Your task to perform on an android device: Open notification settings Image 0: 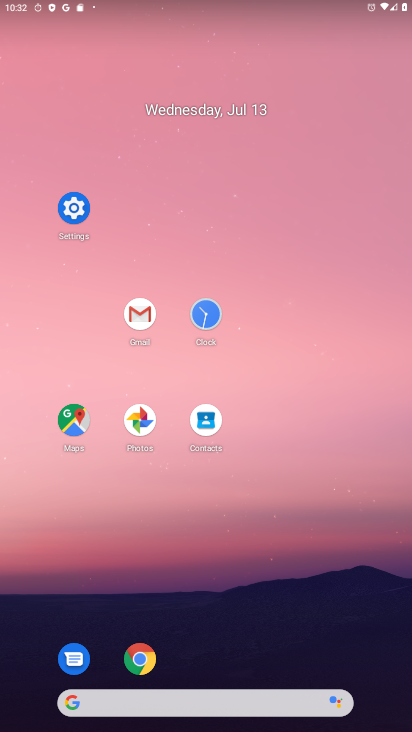
Step 0: click (69, 211)
Your task to perform on an android device: Open notification settings Image 1: 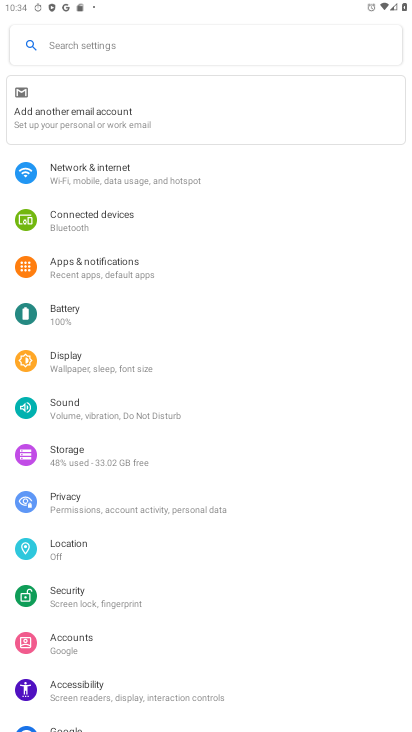
Step 1: click (126, 263)
Your task to perform on an android device: Open notification settings Image 2: 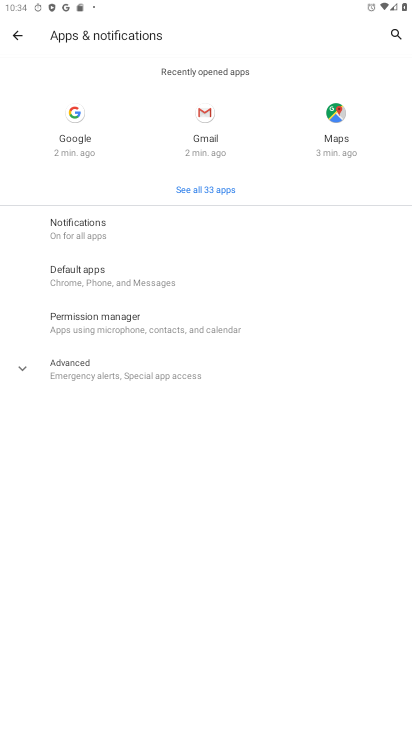
Step 2: task complete